Your task to perform on an android device: Check the weather Image 0: 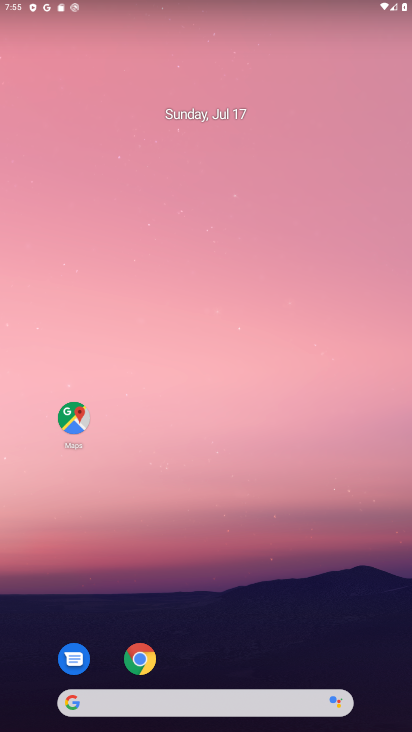
Step 0: drag from (237, 661) to (76, 2)
Your task to perform on an android device: Check the weather Image 1: 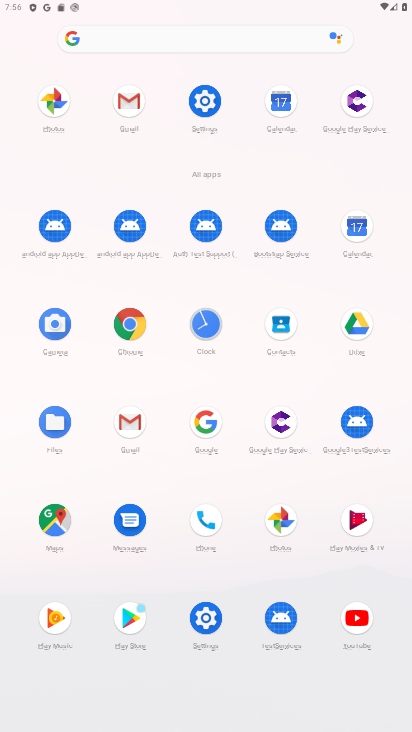
Step 1: press home button
Your task to perform on an android device: Check the weather Image 2: 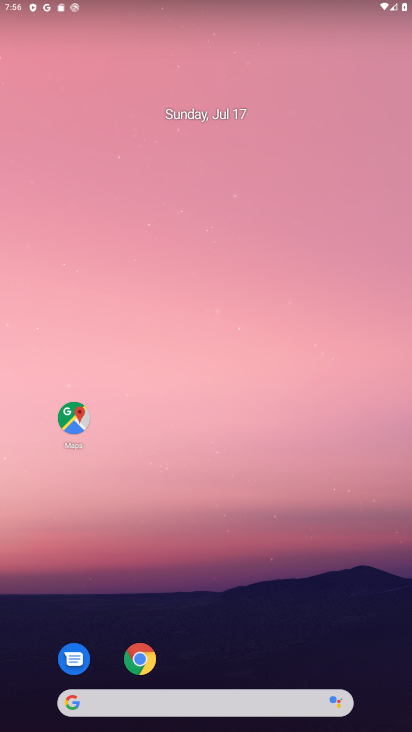
Step 2: click (181, 703)
Your task to perform on an android device: Check the weather Image 3: 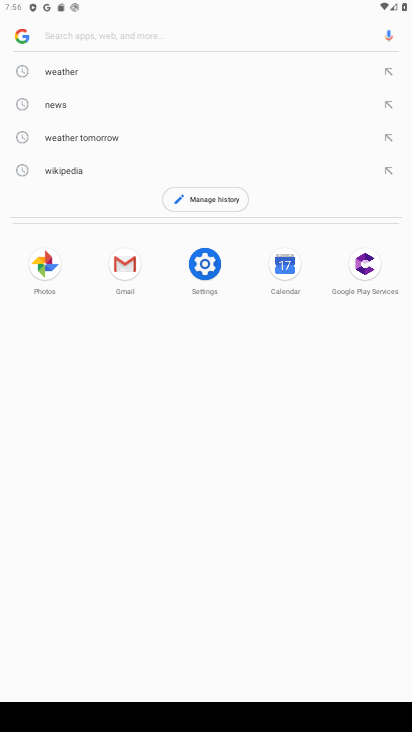
Step 3: type "Check the weather"
Your task to perform on an android device: Check the weather Image 4: 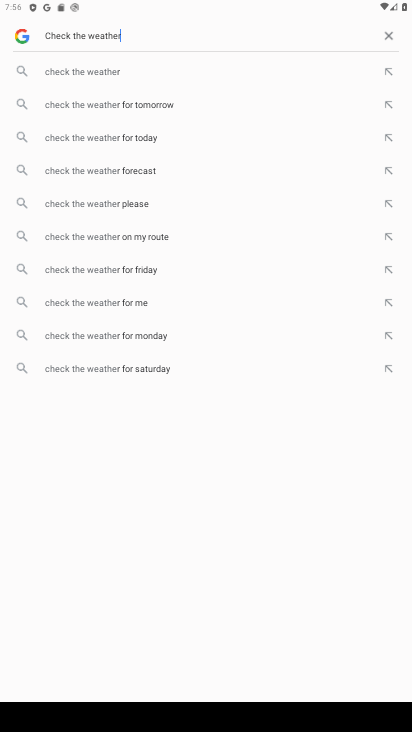
Step 4: press enter
Your task to perform on an android device: Check the weather Image 5: 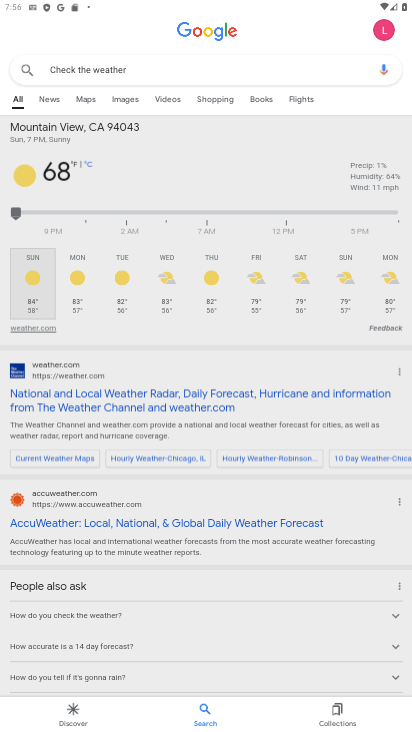
Step 5: task complete